Your task to perform on an android device: Go to privacy settings Image 0: 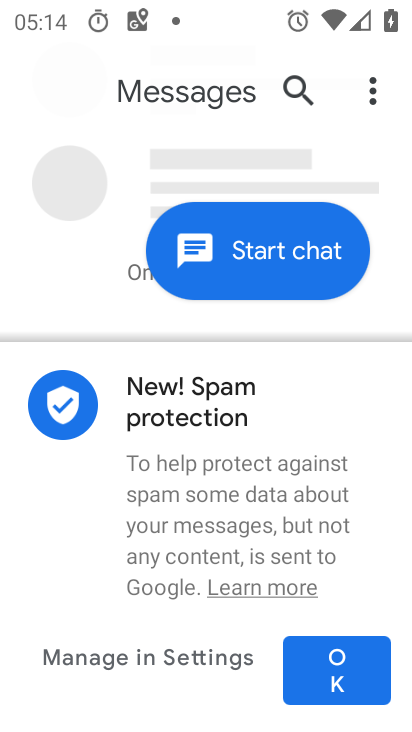
Step 0: press home button
Your task to perform on an android device: Go to privacy settings Image 1: 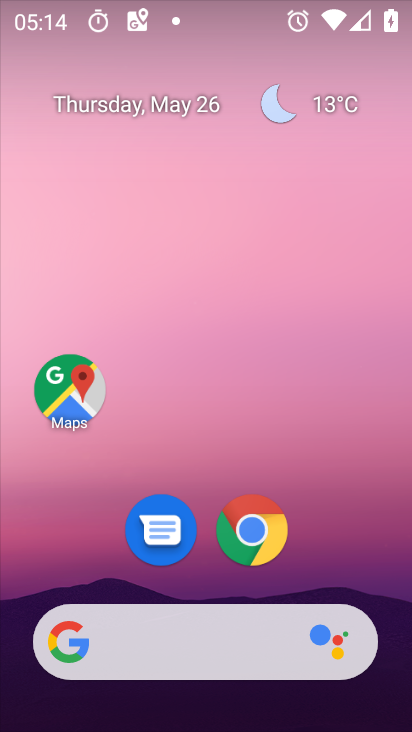
Step 1: drag from (300, 676) to (229, 42)
Your task to perform on an android device: Go to privacy settings Image 2: 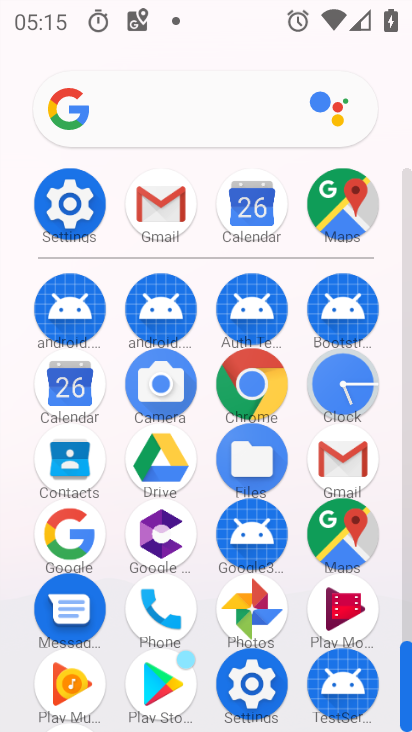
Step 2: click (78, 185)
Your task to perform on an android device: Go to privacy settings Image 3: 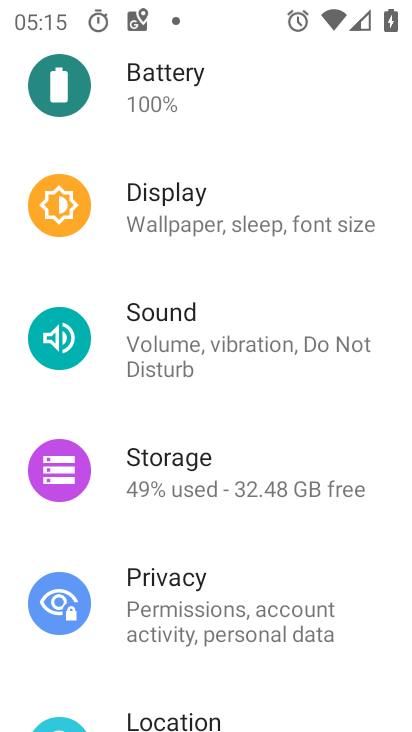
Step 3: drag from (305, 221) to (306, 722)
Your task to perform on an android device: Go to privacy settings Image 4: 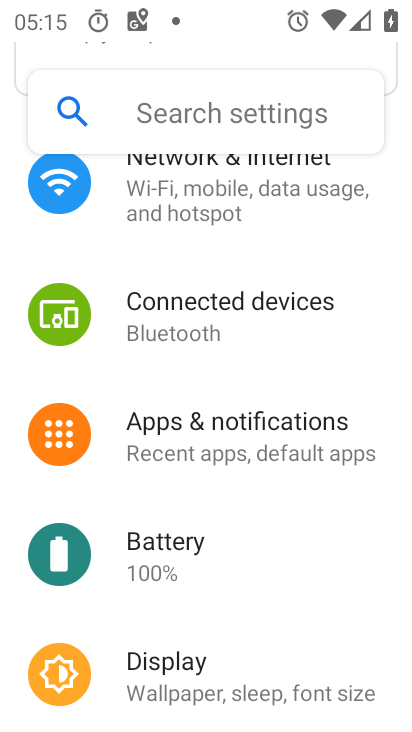
Step 4: drag from (192, 659) to (216, 288)
Your task to perform on an android device: Go to privacy settings Image 5: 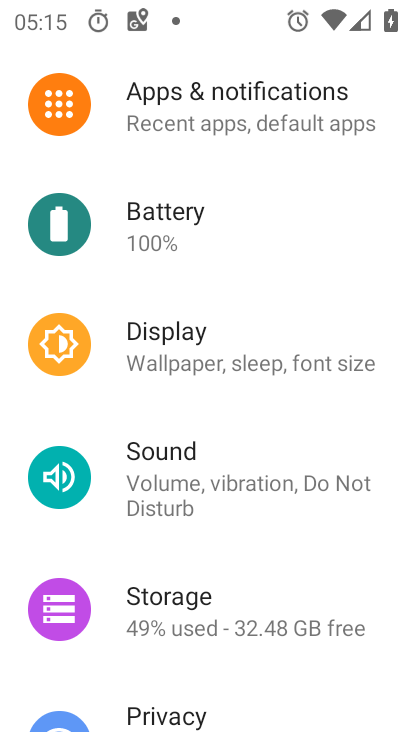
Step 5: click (216, 708)
Your task to perform on an android device: Go to privacy settings Image 6: 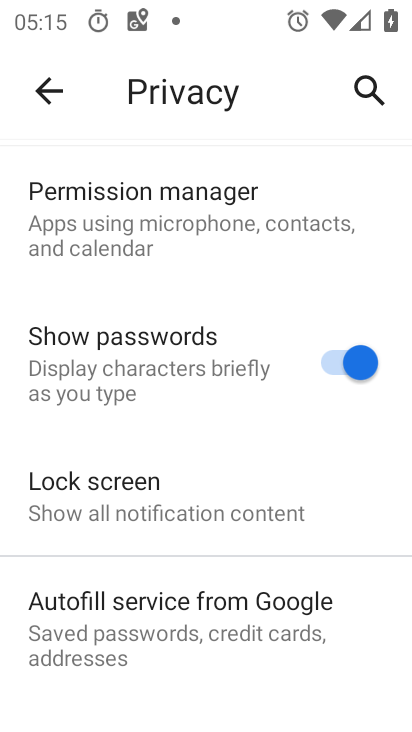
Step 6: task complete